Your task to perform on an android device: turn on airplane mode Image 0: 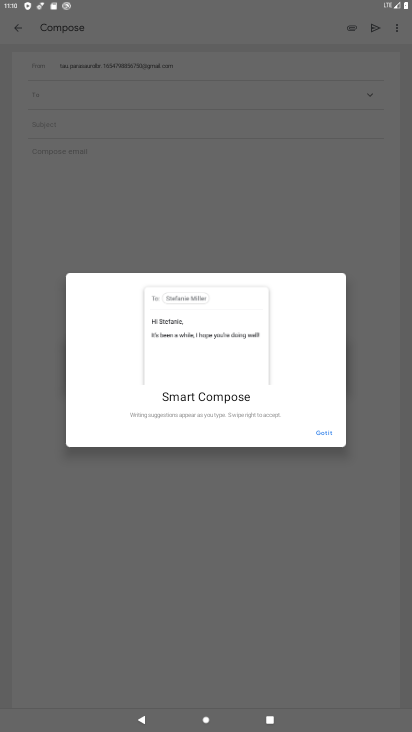
Step 0: press home button
Your task to perform on an android device: turn on airplane mode Image 1: 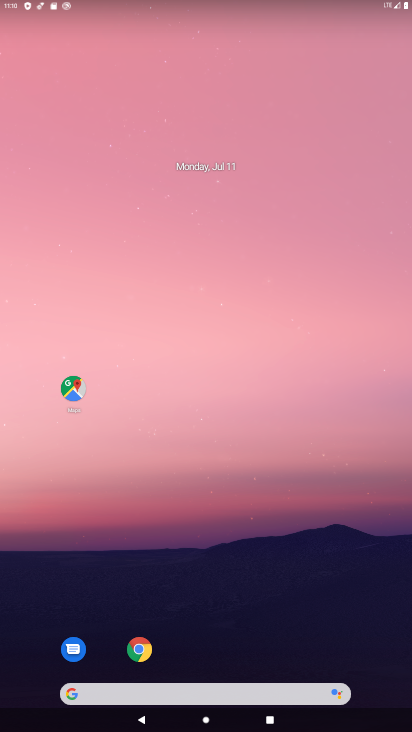
Step 1: drag from (348, 641) to (240, 141)
Your task to perform on an android device: turn on airplane mode Image 2: 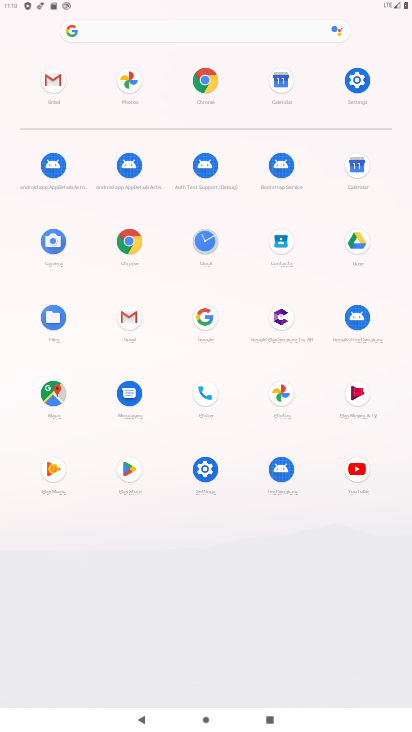
Step 2: click (359, 81)
Your task to perform on an android device: turn on airplane mode Image 3: 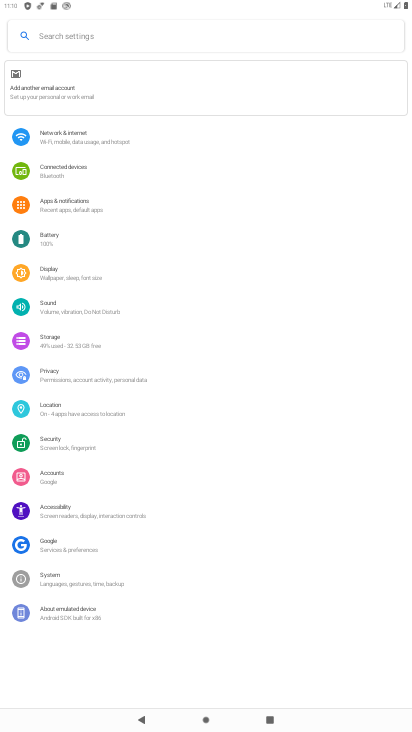
Step 3: click (105, 145)
Your task to perform on an android device: turn on airplane mode Image 4: 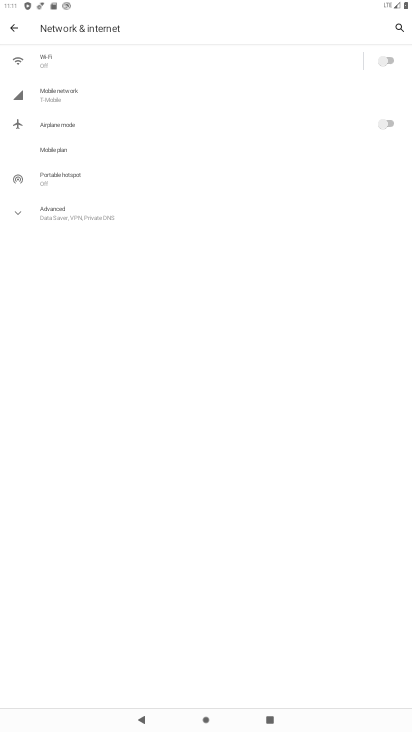
Step 4: click (387, 122)
Your task to perform on an android device: turn on airplane mode Image 5: 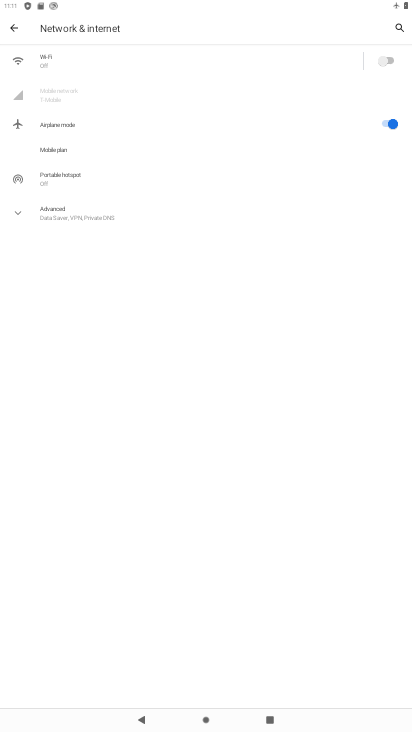
Step 5: task complete